Your task to perform on an android device: check out phone information Image 0: 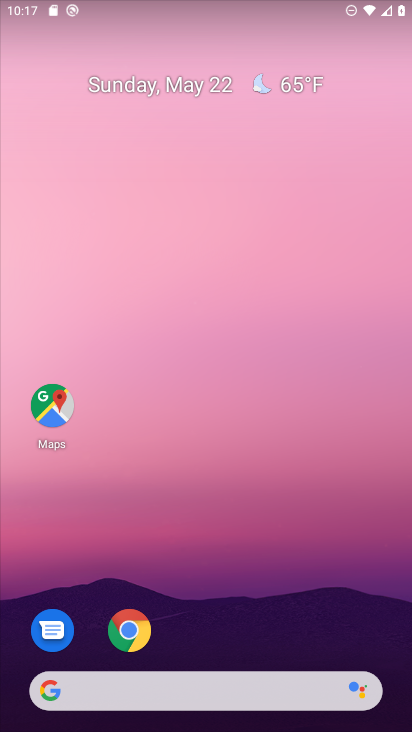
Step 0: press home button
Your task to perform on an android device: check out phone information Image 1: 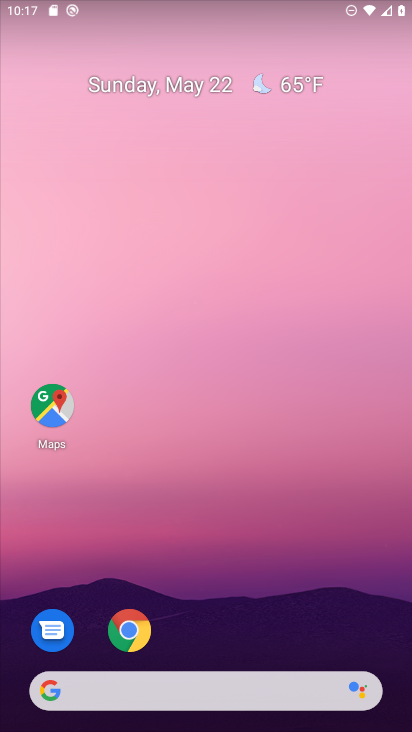
Step 1: drag from (141, 685) to (321, 230)
Your task to perform on an android device: check out phone information Image 2: 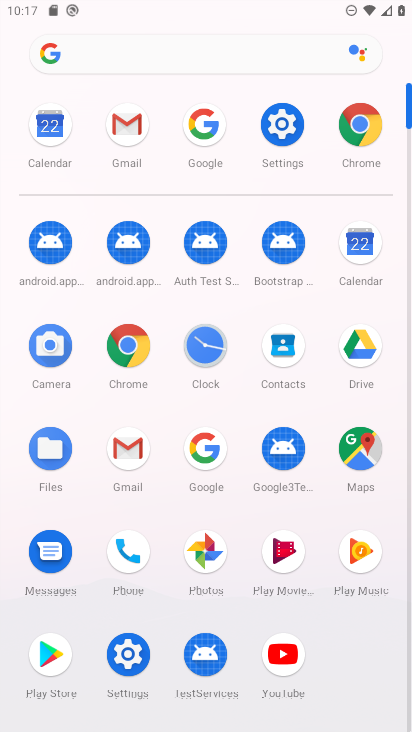
Step 2: click (274, 131)
Your task to perform on an android device: check out phone information Image 3: 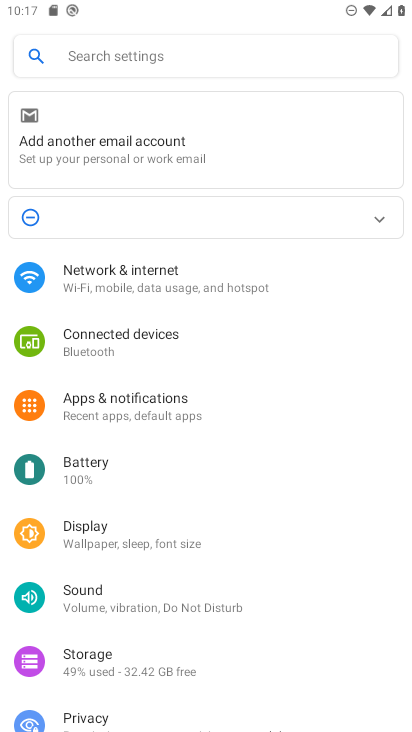
Step 3: drag from (225, 697) to (370, 150)
Your task to perform on an android device: check out phone information Image 4: 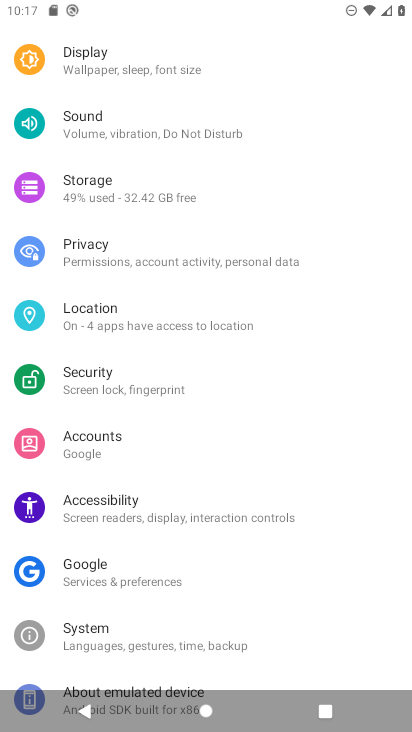
Step 4: drag from (240, 584) to (372, 133)
Your task to perform on an android device: check out phone information Image 5: 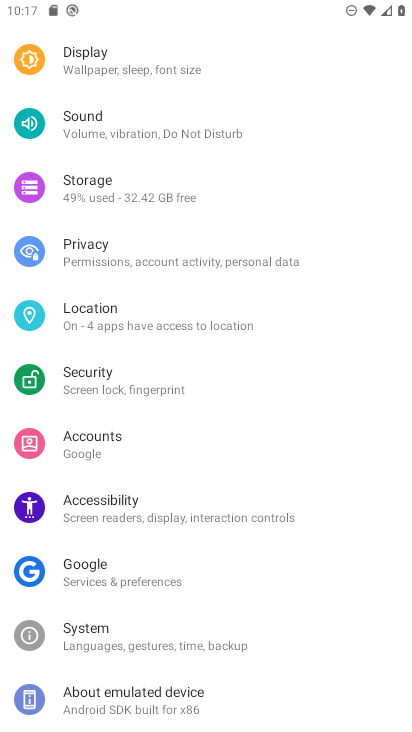
Step 5: click (114, 704)
Your task to perform on an android device: check out phone information Image 6: 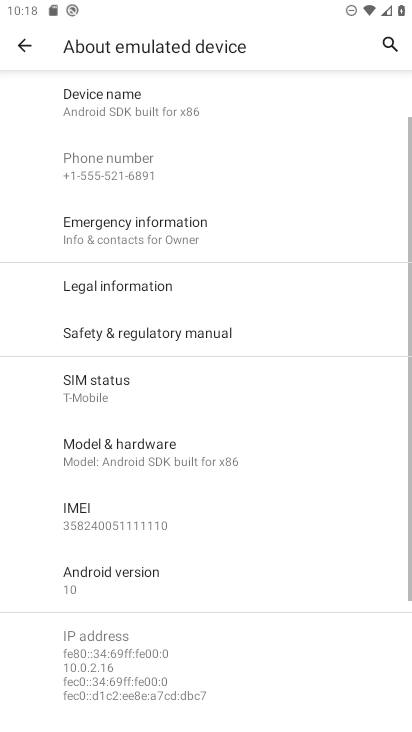
Step 6: task complete